Your task to perform on an android device: delete the emails in spam in the gmail app Image 0: 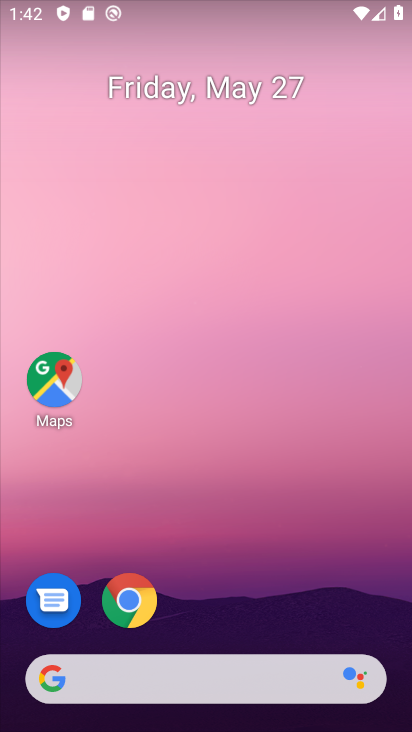
Step 0: drag from (196, 599) to (119, 42)
Your task to perform on an android device: delete the emails in spam in the gmail app Image 1: 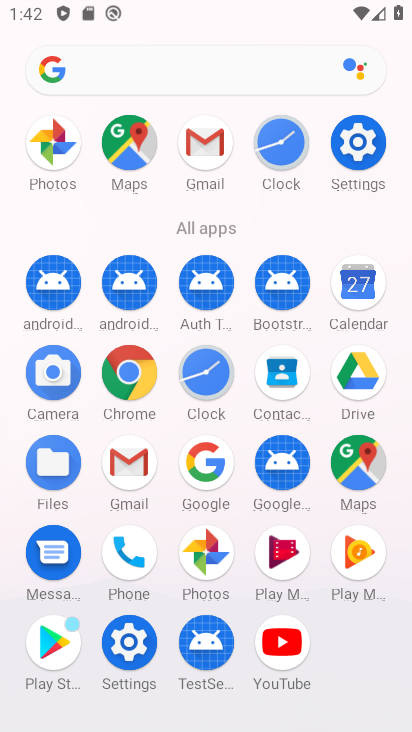
Step 1: drag from (17, 555) to (16, 211)
Your task to perform on an android device: delete the emails in spam in the gmail app Image 2: 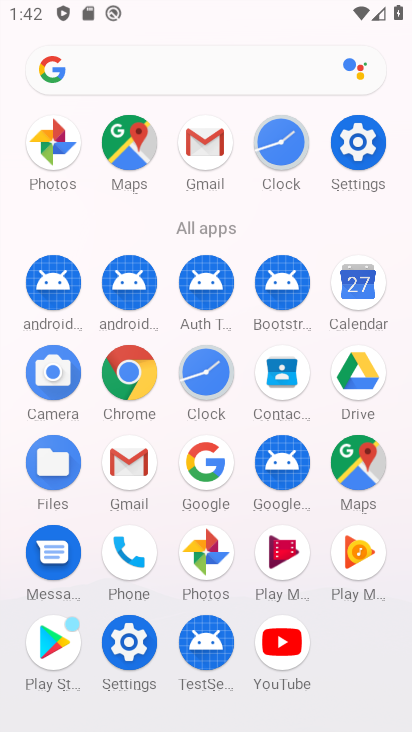
Step 2: click (124, 454)
Your task to perform on an android device: delete the emails in spam in the gmail app Image 3: 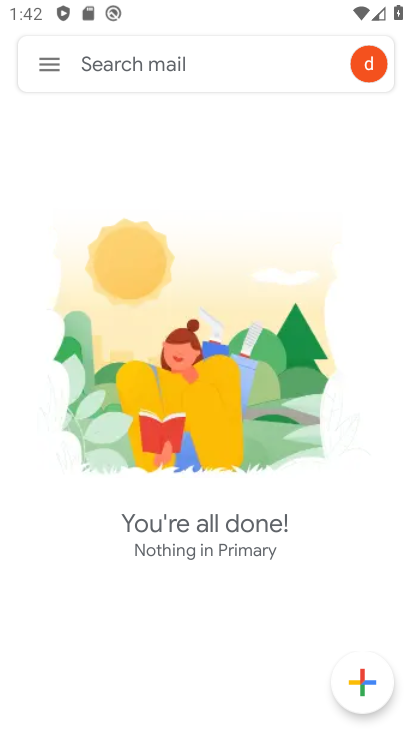
Step 3: click (44, 58)
Your task to perform on an android device: delete the emails in spam in the gmail app Image 4: 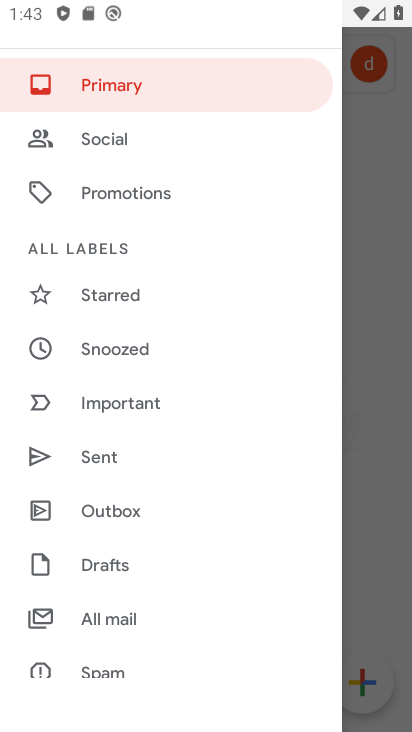
Step 4: drag from (185, 538) to (173, 167)
Your task to perform on an android device: delete the emails in spam in the gmail app Image 5: 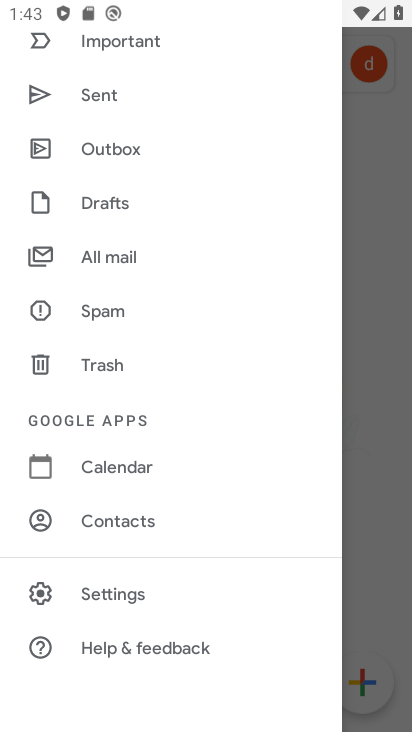
Step 5: drag from (182, 443) to (152, 87)
Your task to perform on an android device: delete the emails in spam in the gmail app Image 6: 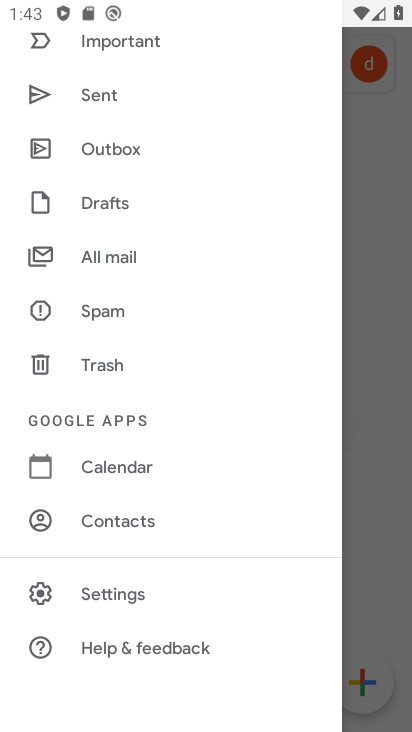
Step 6: drag from (185, 176) to (189, 542)
Your task to perform on an android device: delete the emails in spam in the gmail app Image 7: 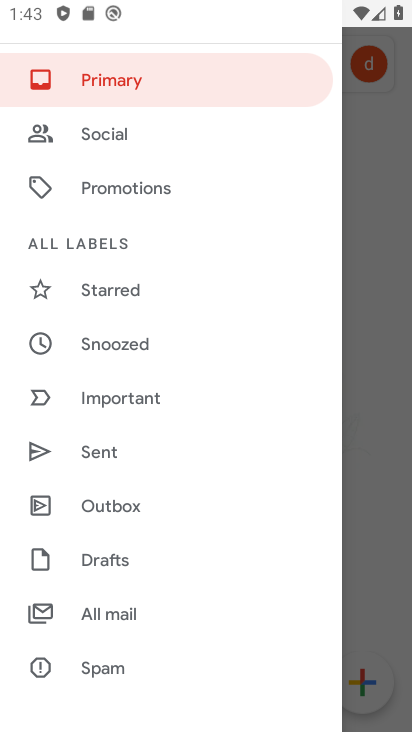
Step 7: drag from (175, 154) to (201, 568)
Your task to perform on an android device: delete the emails in spam in the gmail app Image 8: 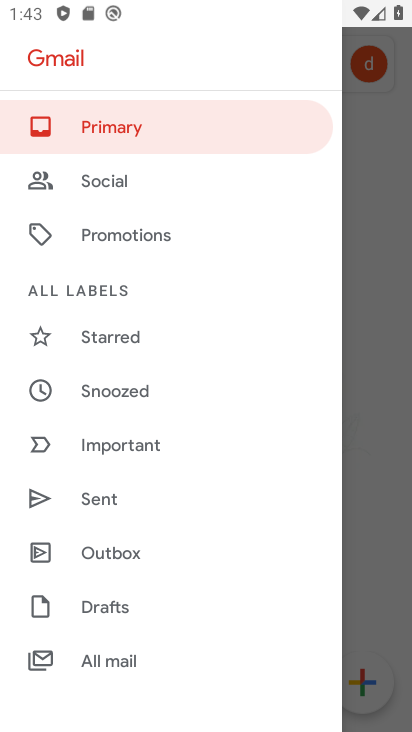
Step 8: drag from (185, 547) to (198, 141)
Your task to perform on an android device: delete the emails in spam in the gmail app Image 9: 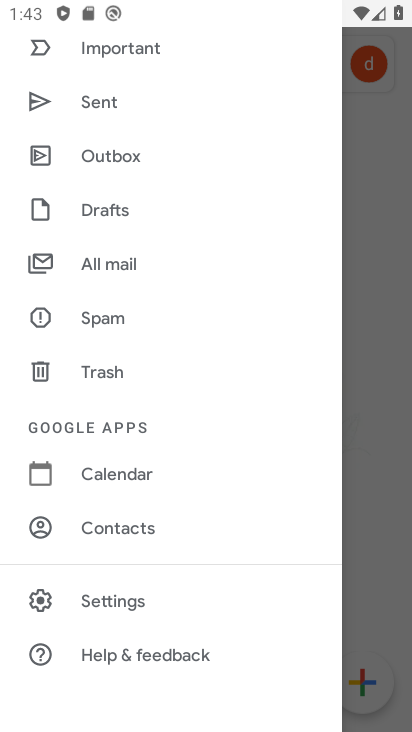
Step 9: drag from (153, 541) to (179, 188)
Your task to perform on an android device: delete the emails in spam in the gmail app Image 10: 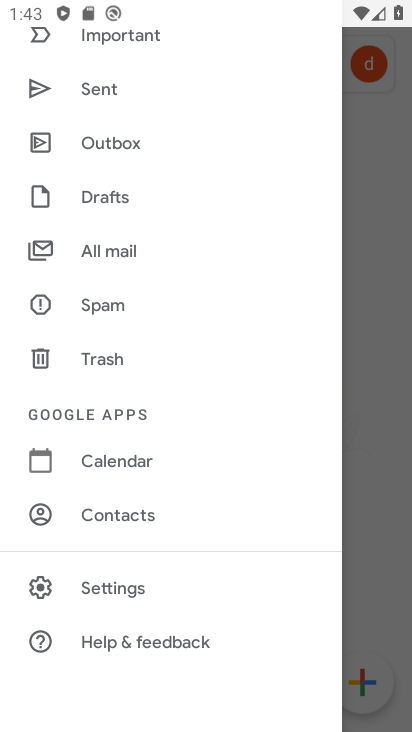
Step 10: click (99, 300)
Your task to perform on an android device: delete the emails in spam in the gmail app Image 11: 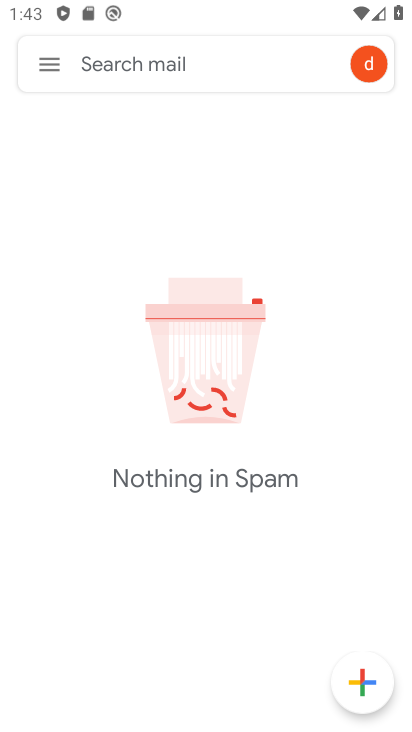
Step 11: task complete